Your task to perform on an android device: Empty the shopping cart on ebay. Add "acer nitro" to the cart on ebay Image 0: 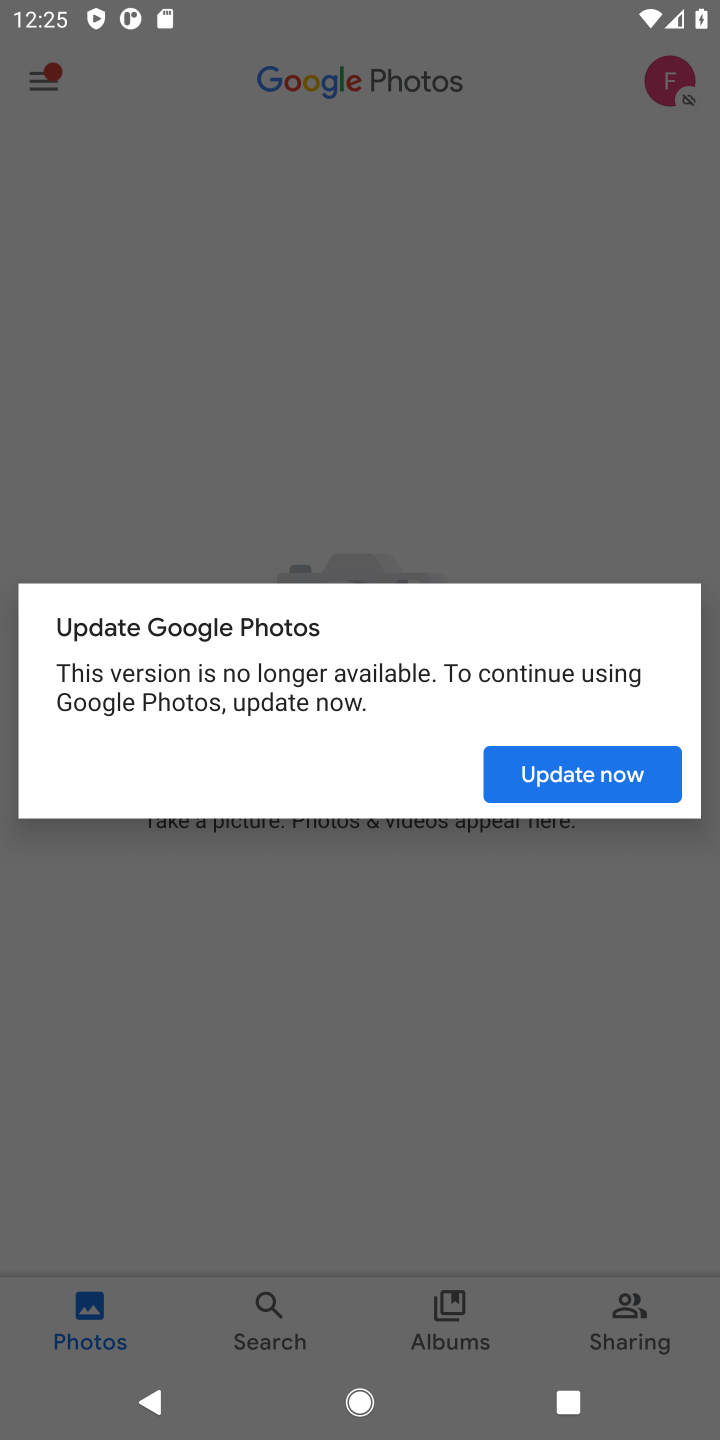
Step 0: press home button
Your task to perform on an android device: Empty the shopping cart on ebay. Add "acer nitro" to the cart on ebay Image 1: 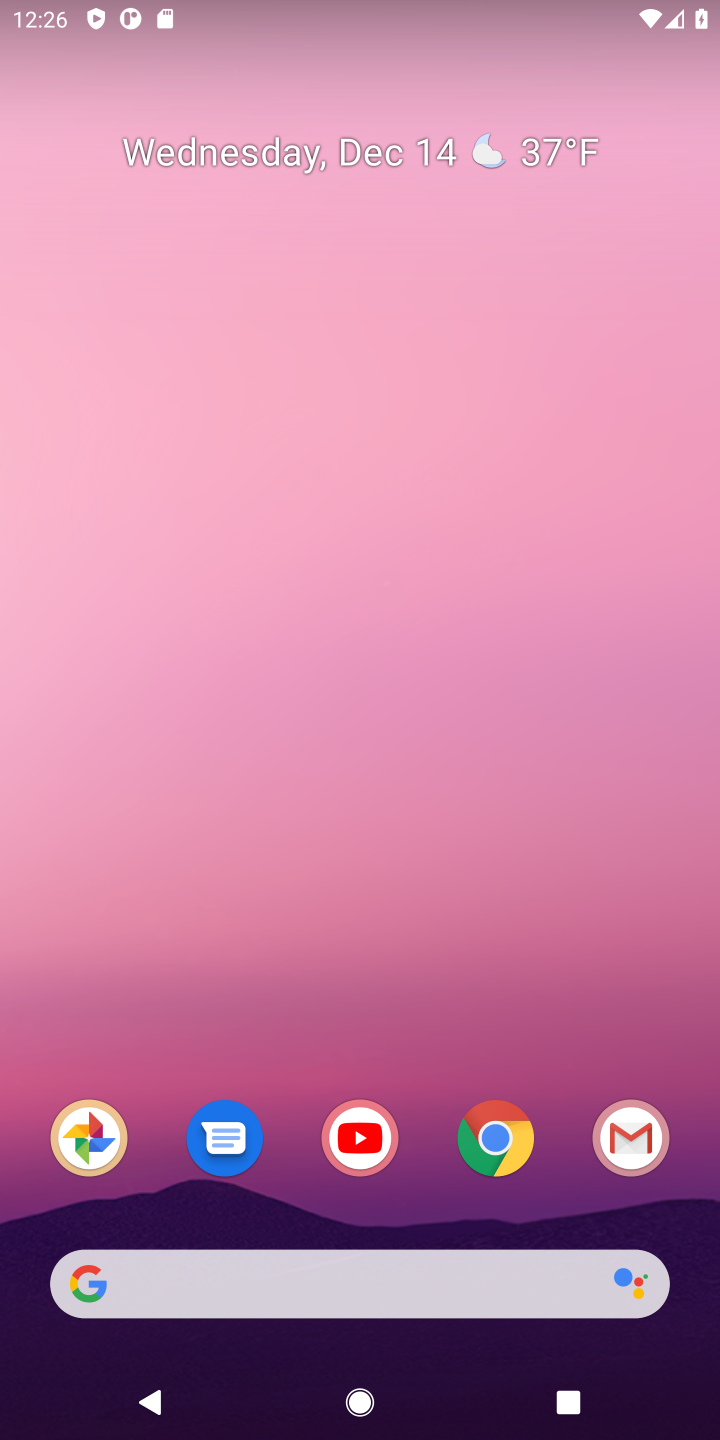
Step 1: click (495, 1134)
Your task to perform on an android device: Empty the shopping cart on ebay. Add "acer nitro" to the cart on ebay Image 2: 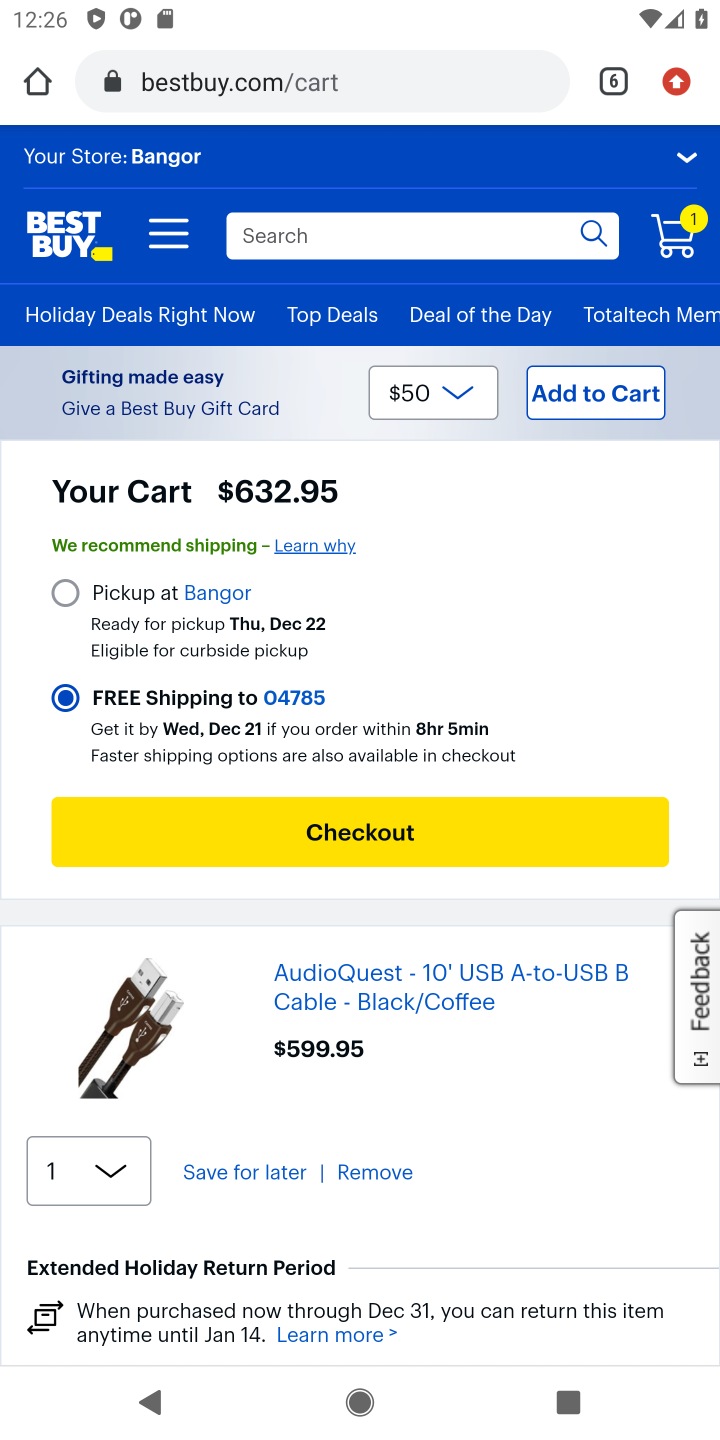
Step 2: click (606, 73)
Your task to perform on an android device: Empty the shopping cart on ebay. Add "acer nitro" to the cart on ebay Image 3: 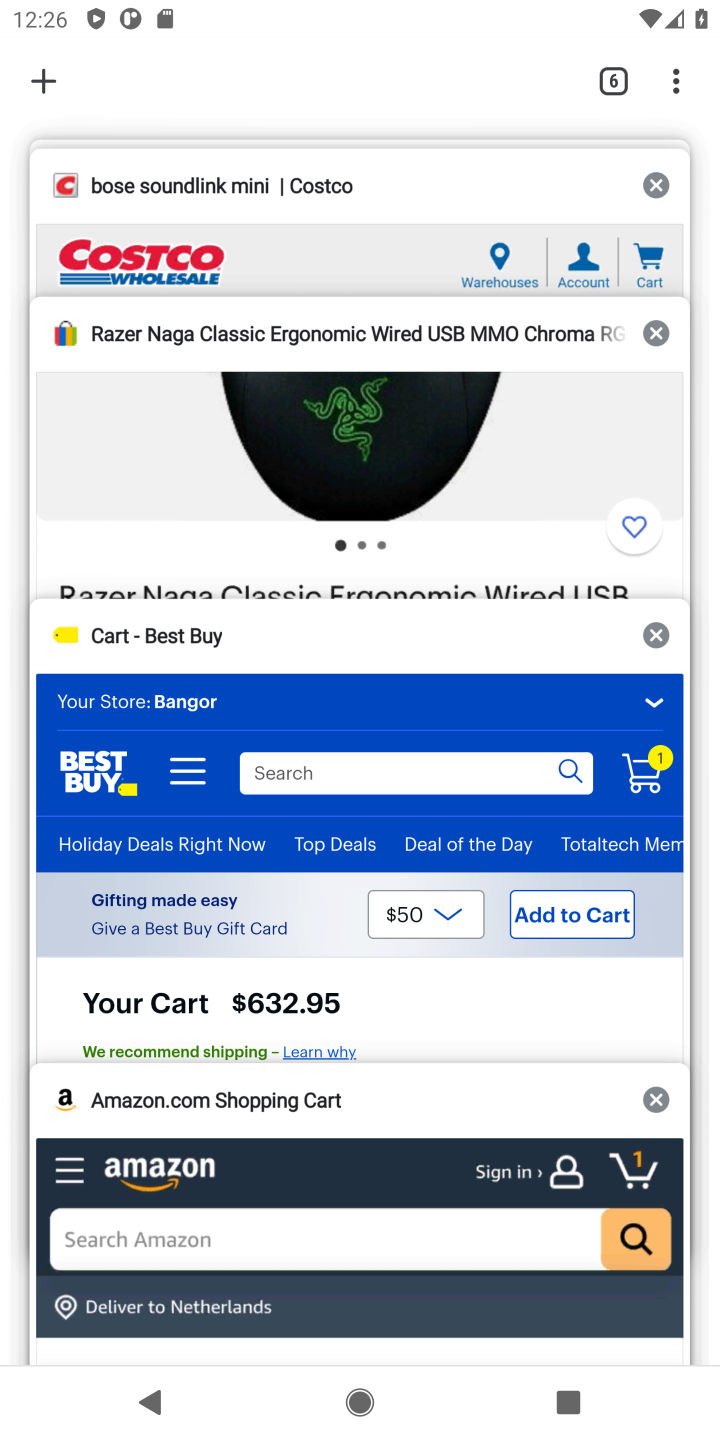
Step 3: drag from (275, 187) to (257, 1220)
Your task to perform on an android device: Empty the shopping cart on ebay. Add "acer nitro" to the cart on ebay Image 4: 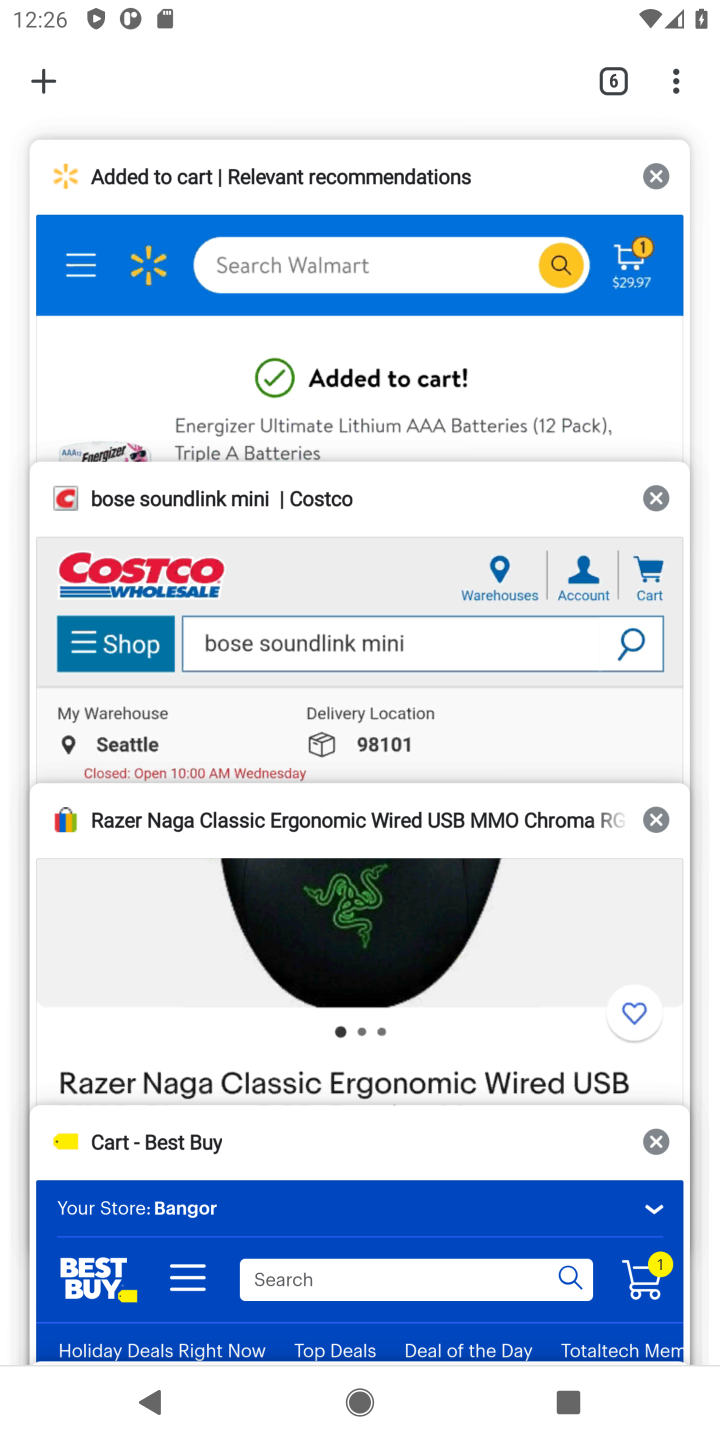
Step 4: drag from (172, 1314) to (388, 629)
Your task to perform on an android device: Empty the shopping cart on ebay. Add "acer nitro" to the cart on ebay Image 5: 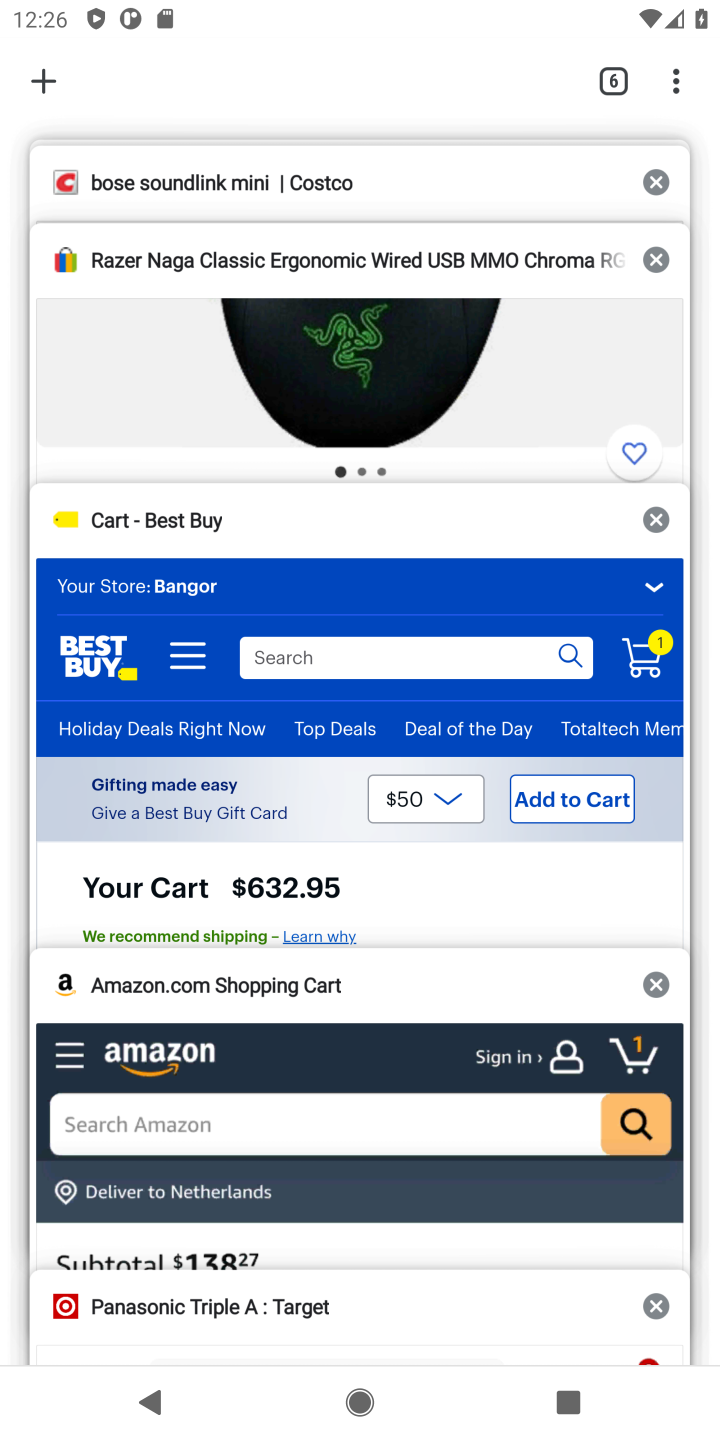
Step 5: click (315, 379)
Your task to perform on an android device: Empty the shopping cart on ebay. Add "acer nitro" to the cart on ebay Image 6: 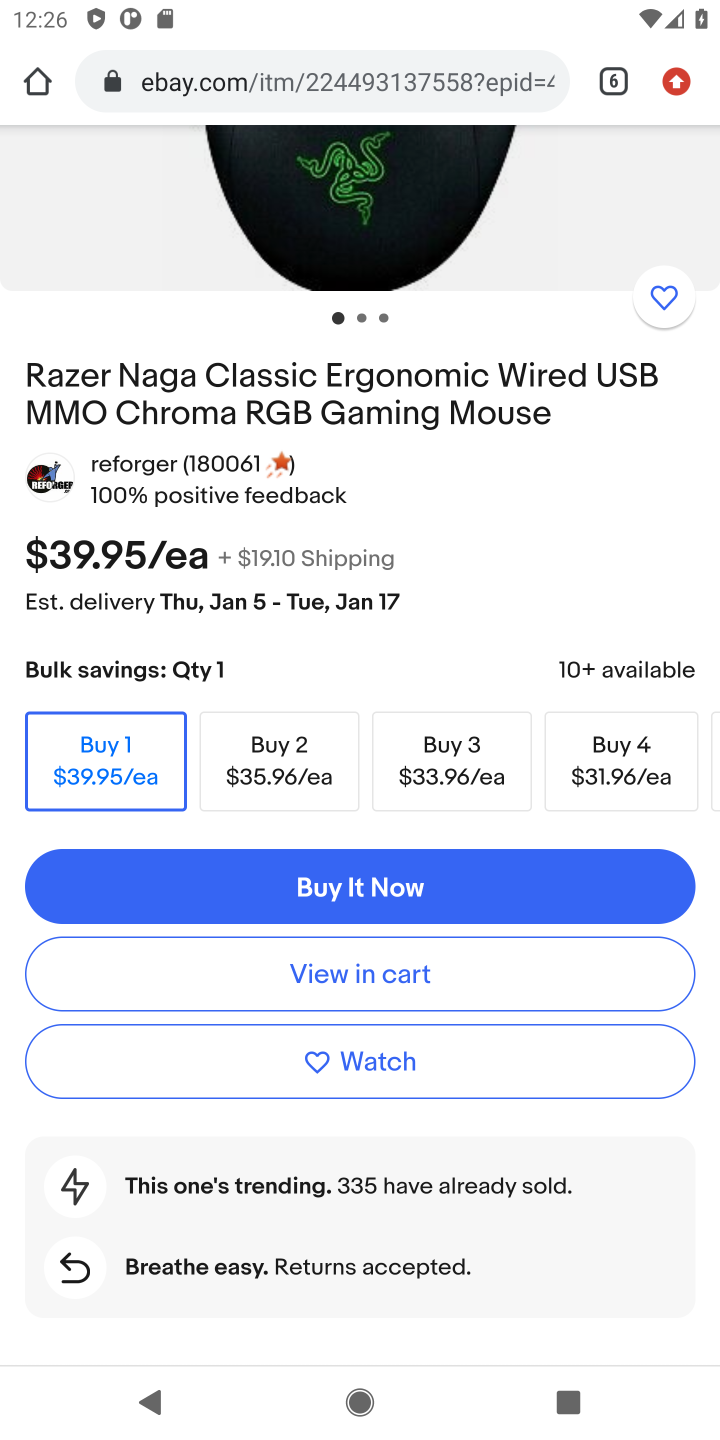
Step 6: click (321, 964)
Your task to perform on an android device: Empty the shopping cart on ebay. Add "acer nitro" to the cart on ebay Image 7: 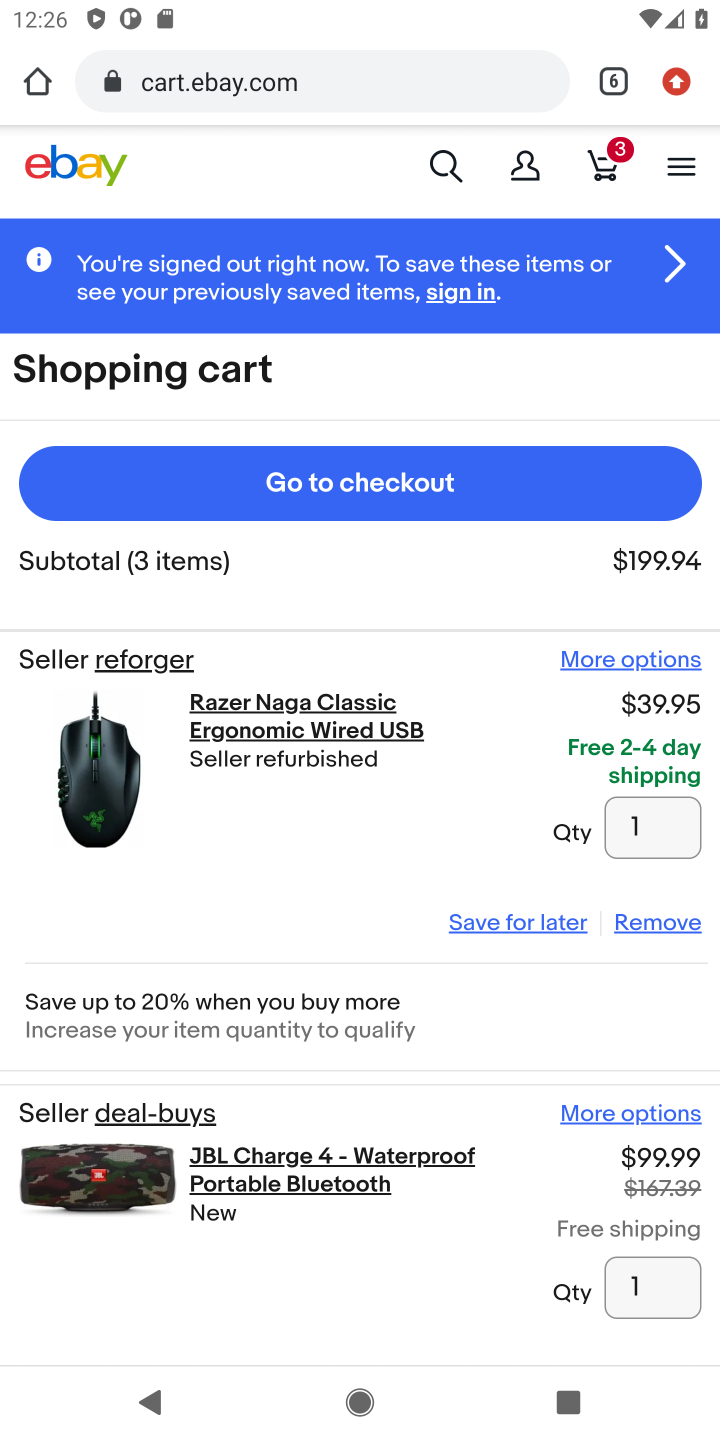
Step 7: click (666, 908)
Your task to perform on an android device: Empty the shopping cart on ebay. Add "acer nitro" to the cart on ebay Image 8: 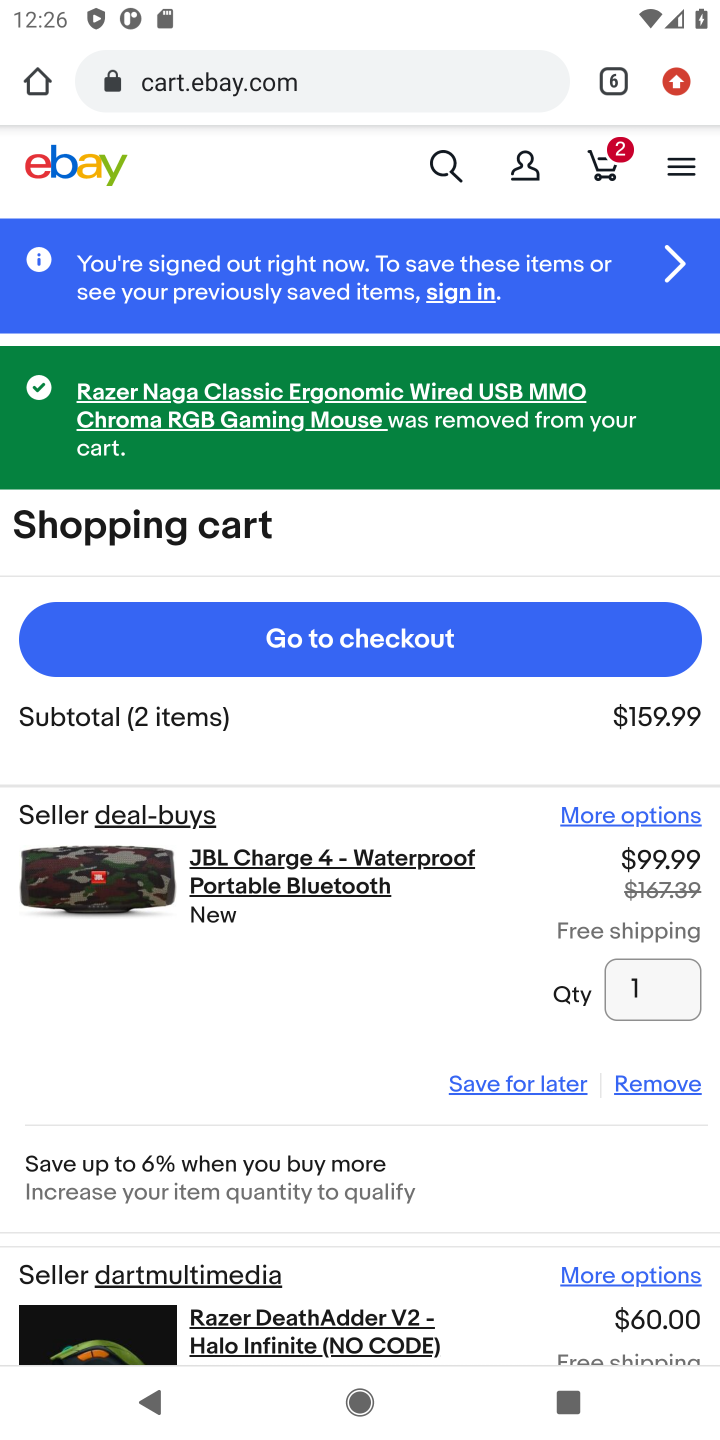
Step 8: click (665, 1074)
Your task to perform on an android device: Empty the shopping cart on ebay. Add "acer nitro" to the cart on ebay Image 9: 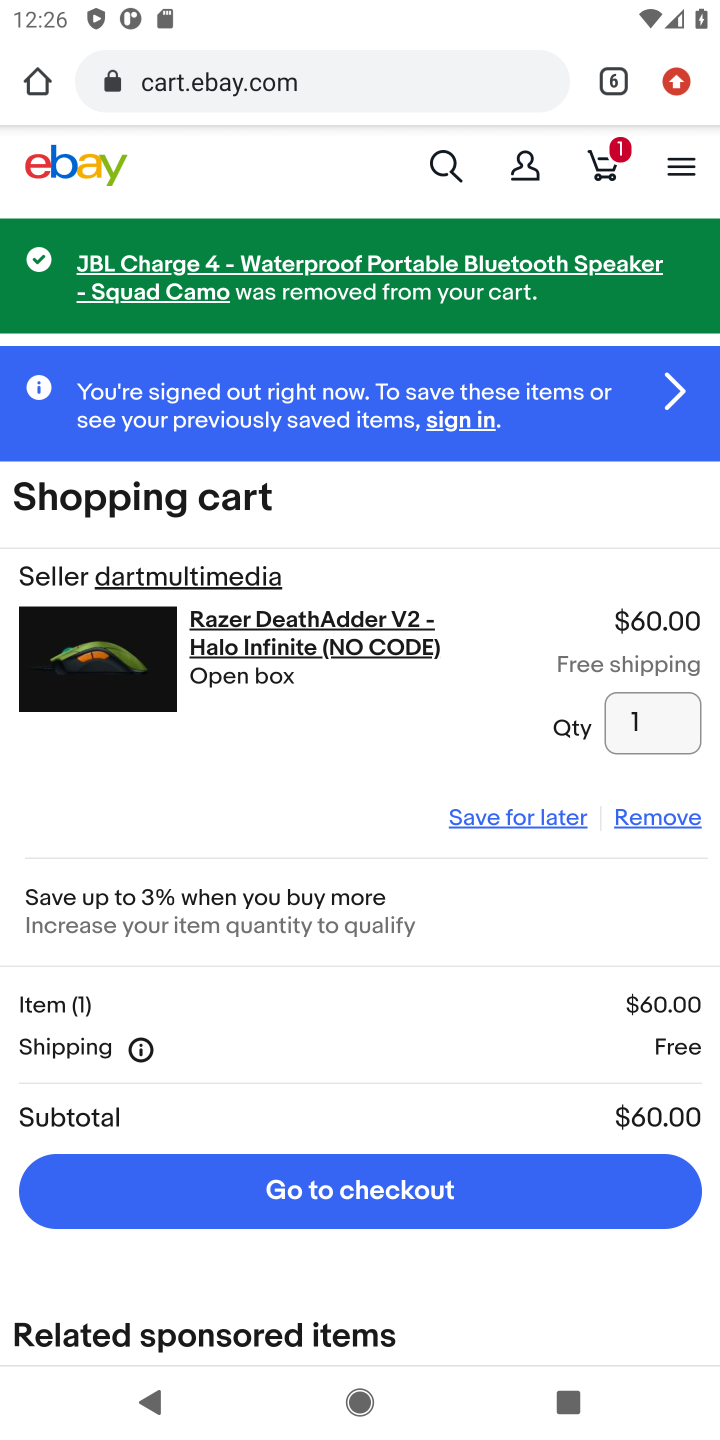
Step 9: click (640, 818)
Your task to perform on an android device: Empty the shopping cart on ebay. Add "acer nitro" to the cart on ebay Image 10: 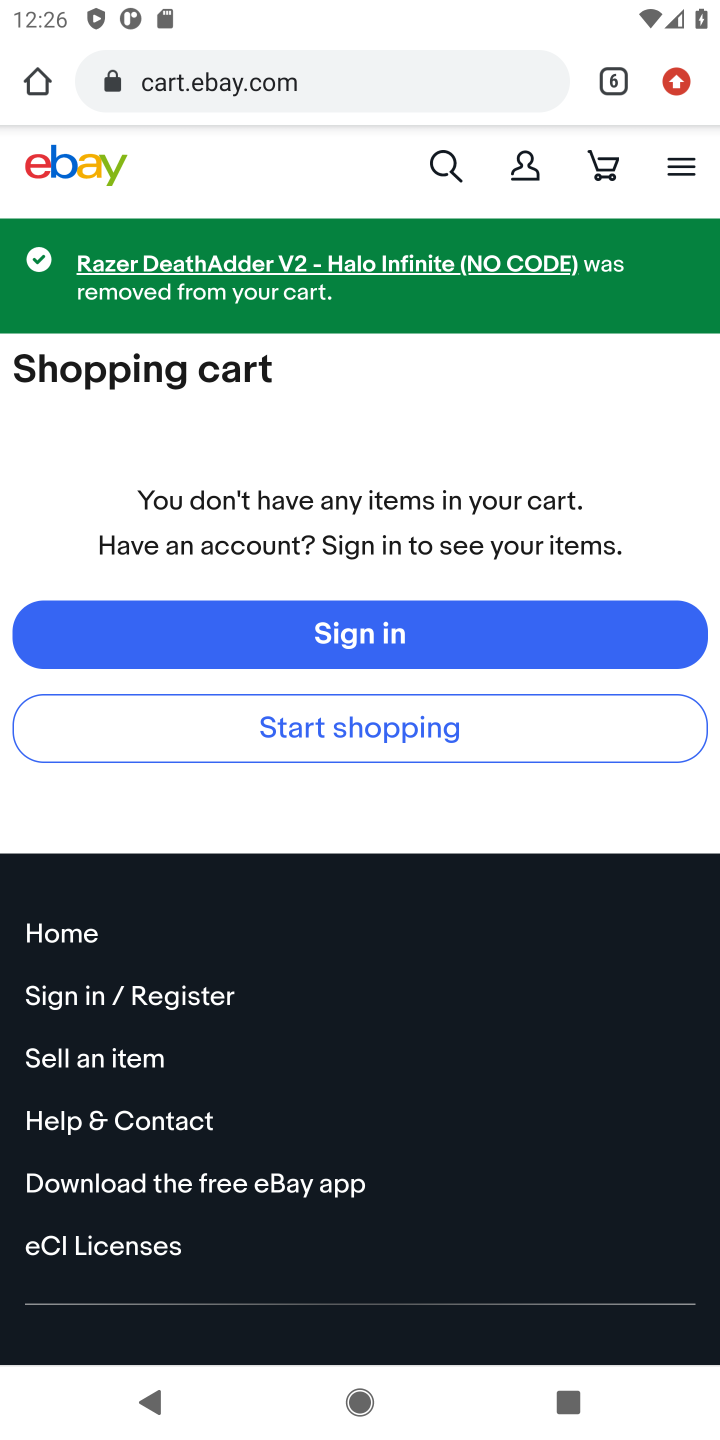
Step 10: click (441, 151)
Your task to perform on an android device: Empty the shopping cart on ebay. Add "acer nitro" to the cart on ebay Image 11: 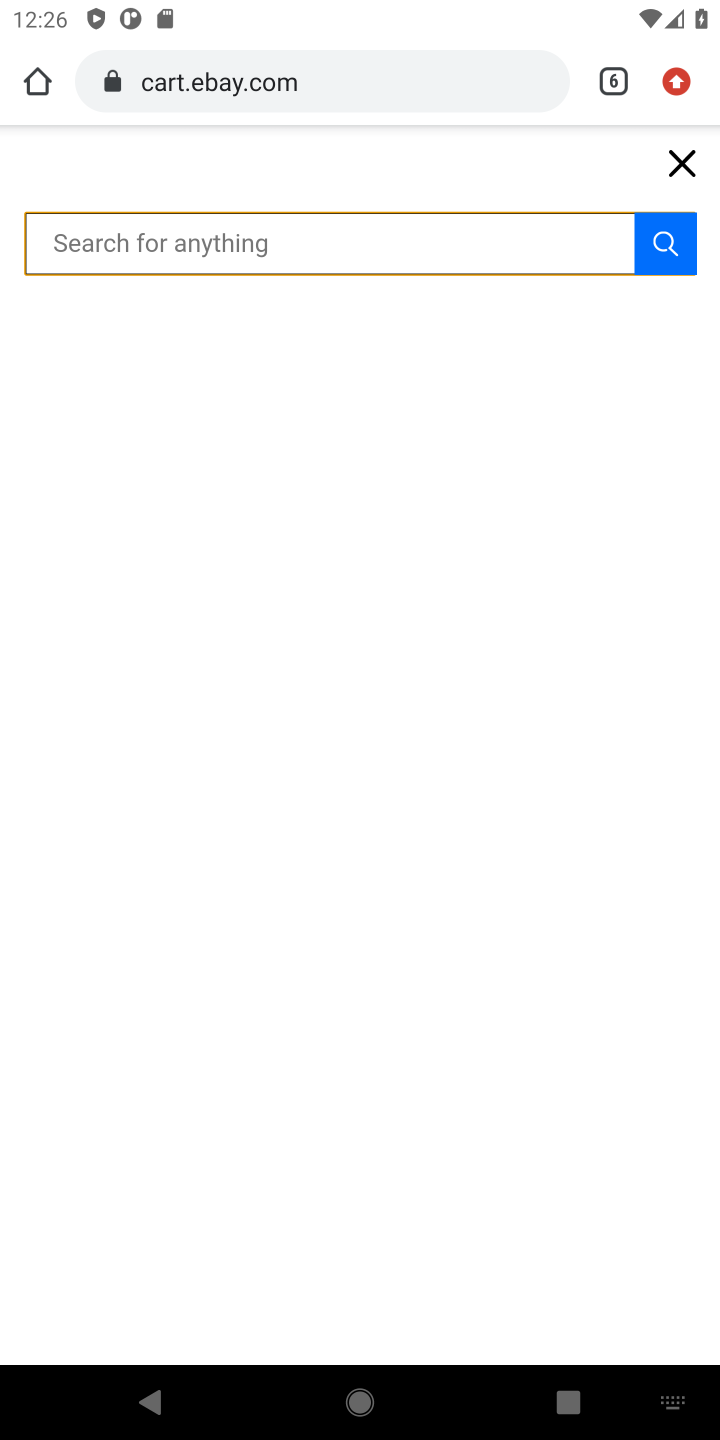
Step 11: type "acer nitro"
Your task to perform on an android device: Empty the shopping cart on ebay. Add "acer nitro" to the cart on ebay Image 12: 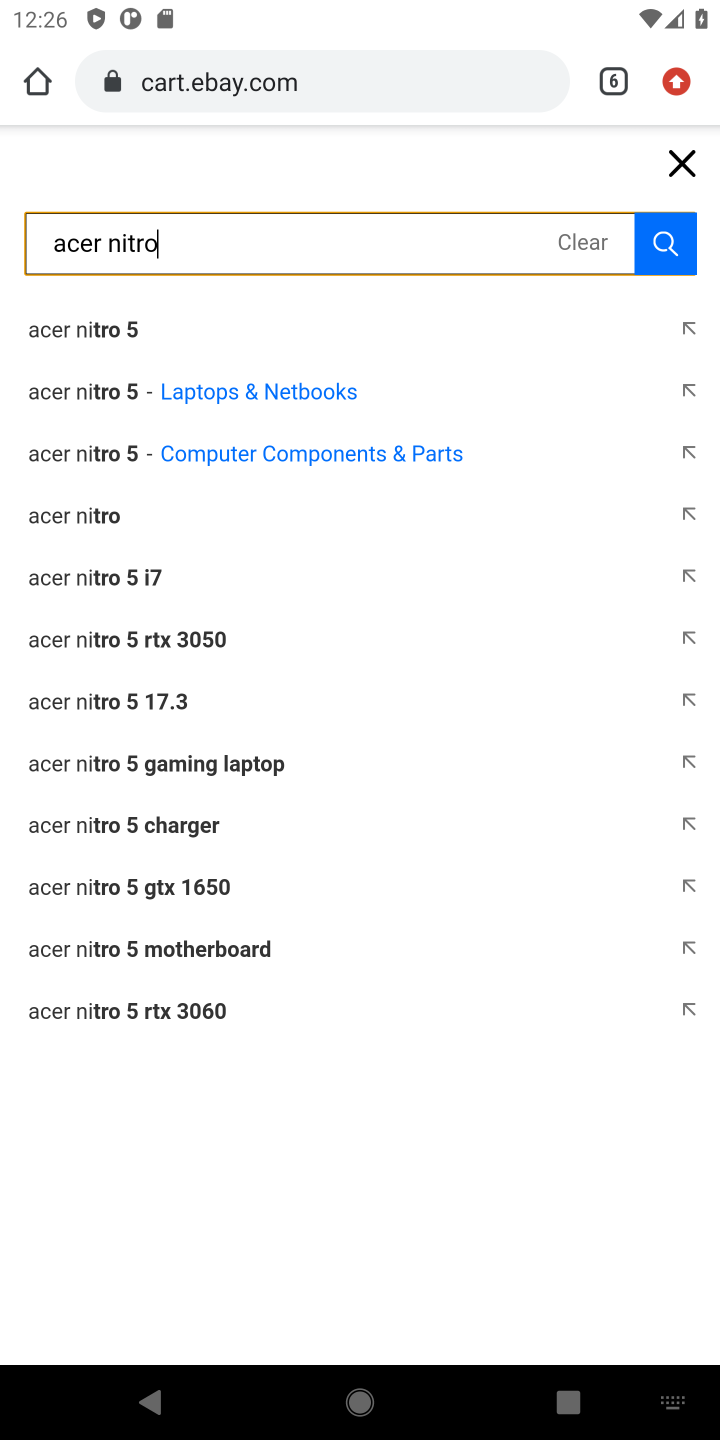
Step 12: click (104, 389)
Your task to perform on an android device: Empty the shopping cart on ebay. Add "acer nitro" to the cart on ebay Image 13: 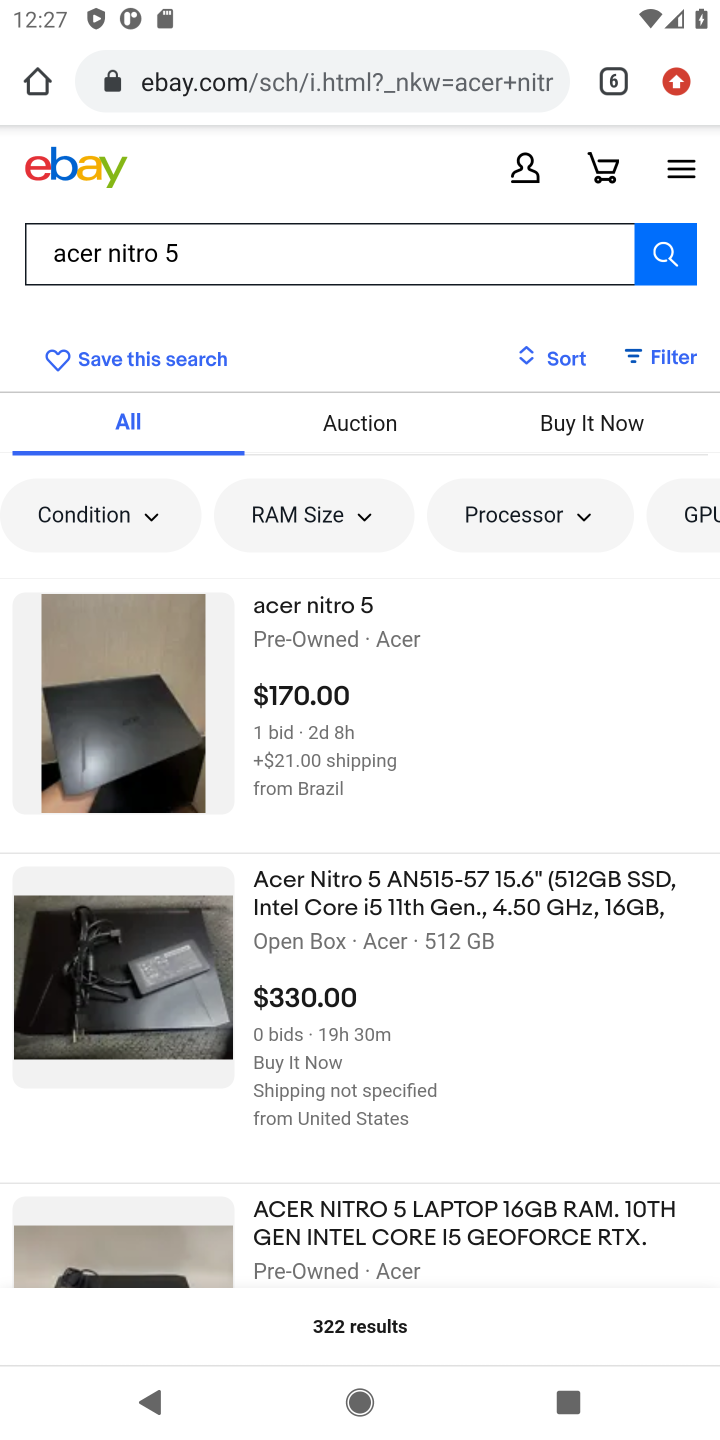
Step 13: click (406, 913)
Your task to perform on an android device: Empty the shopping cart on ebay. Add "acer nitro" to the cart on ebay Image 14: 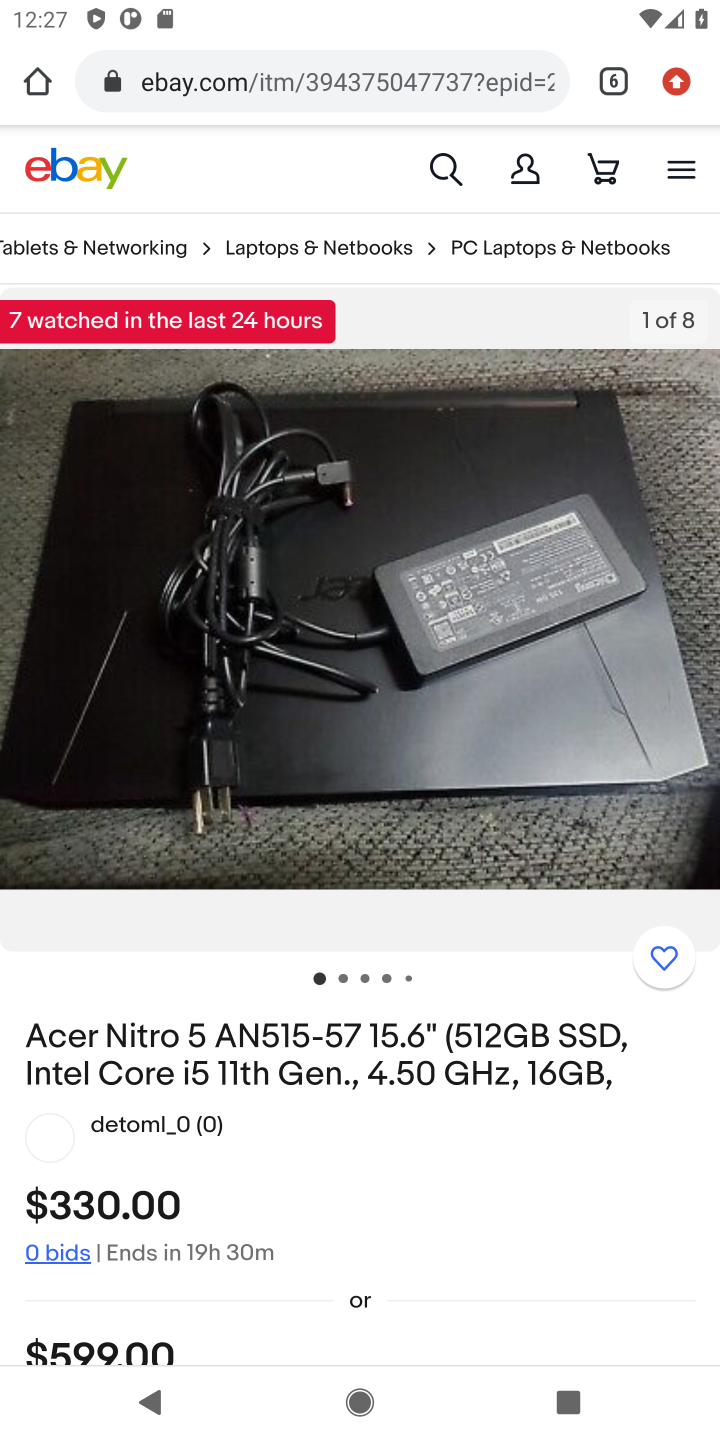
Step 14: drag from (438, 1230) to (157, 288)
Your task to perform on an android device: Empty the shopping cart on ebay. Add "acer nitro" to the cart on ebay Image 15: 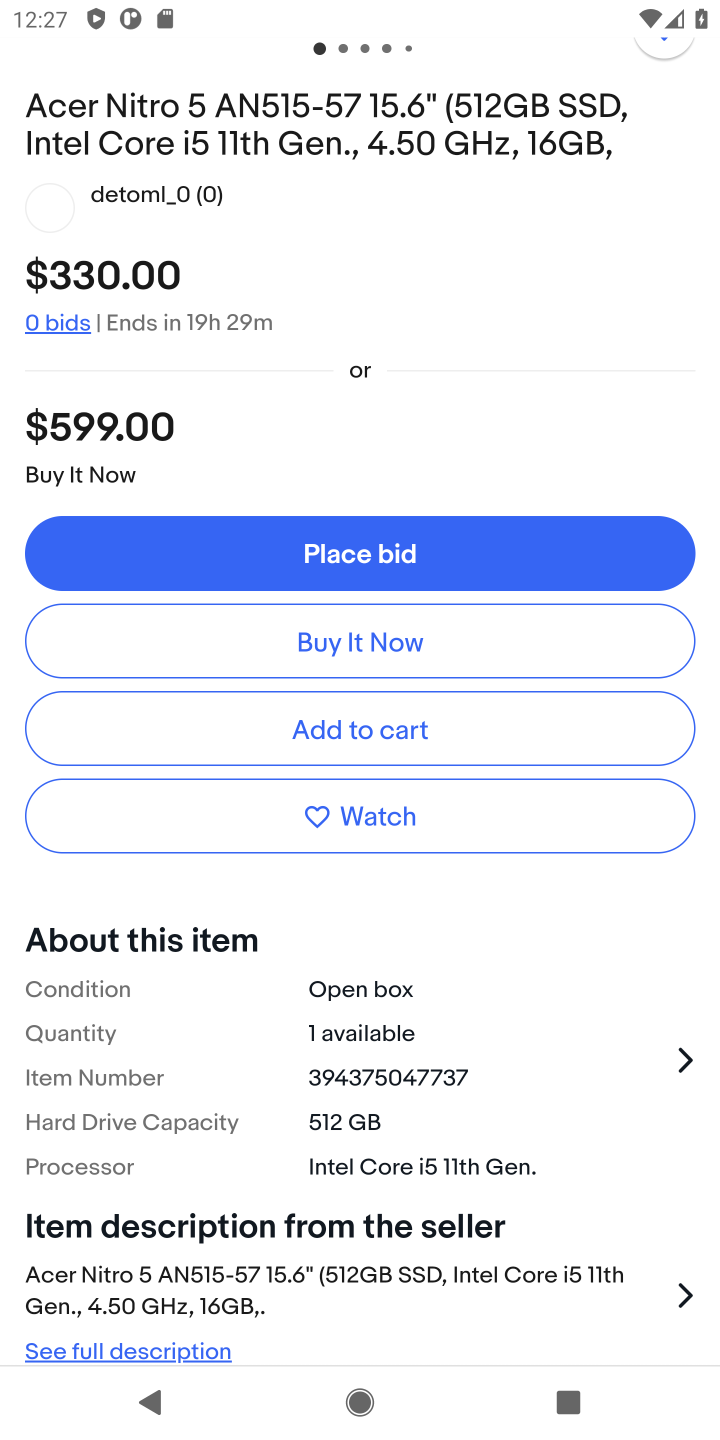
Step 15: press home button
Your task to perform on an android device: Empty the shopping cart on ebay. Add "acer nitro" to the cart on ebay Image 16: 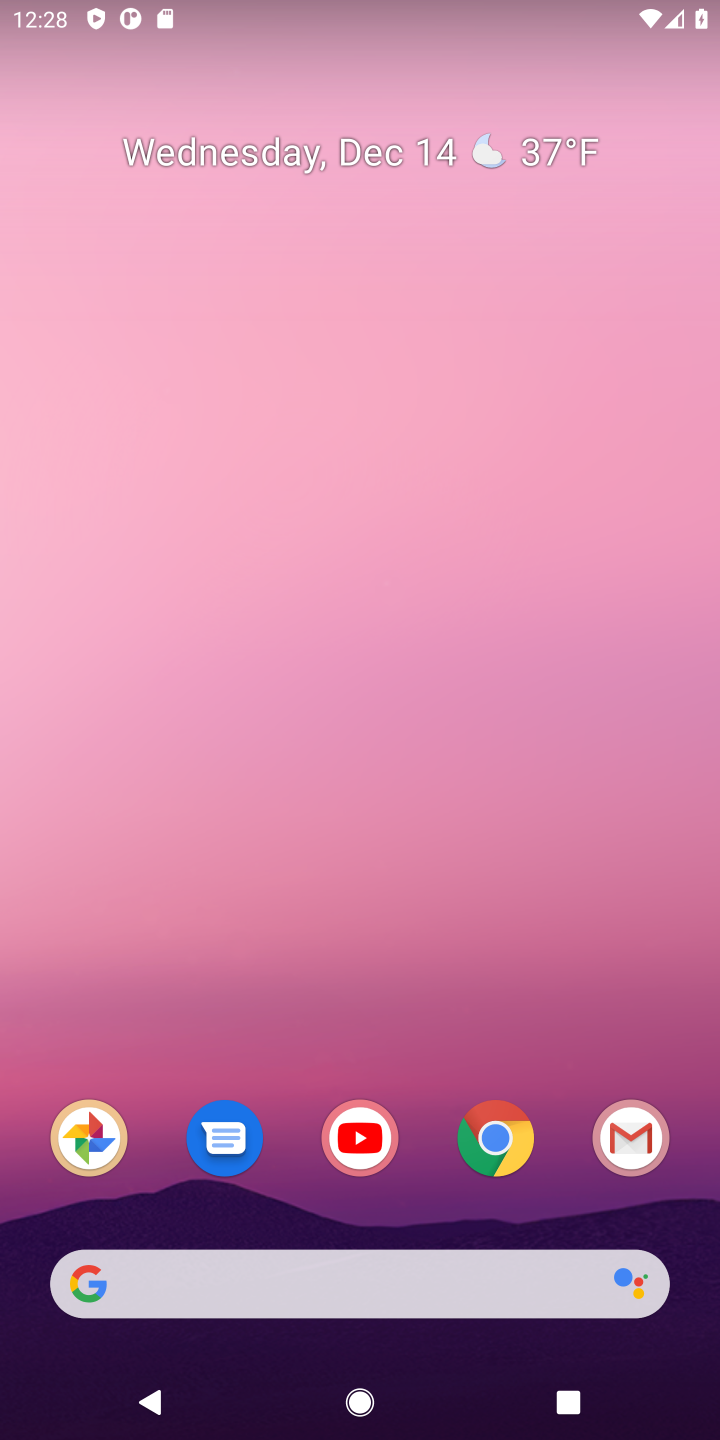
Step 16: click (488, 1146)
Your task to perform on an android device: Empty the shopping cart on ebay. Add "acer nitro" to the cart on ebay Image 17: 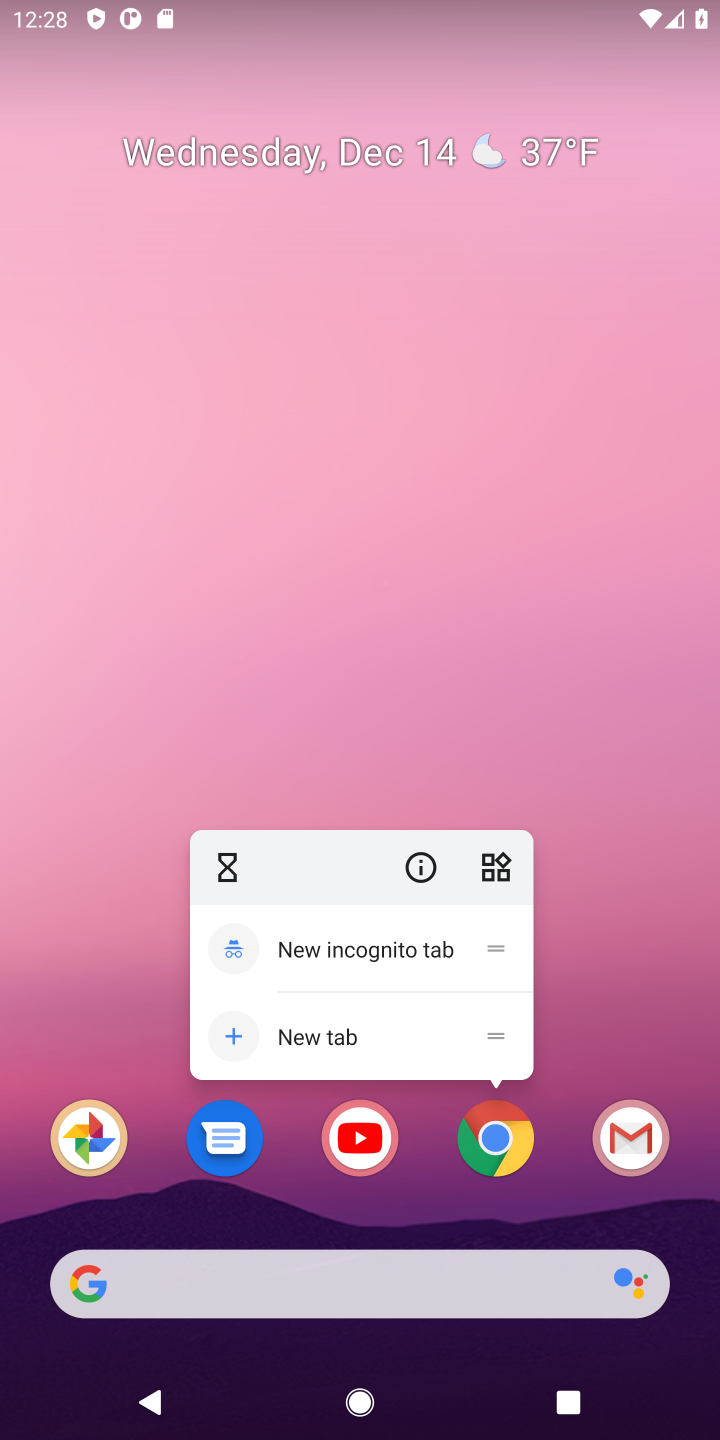
Step 17: click (488, 1146)
Your task to perform on an android device: Empty the shopping cart on ebay. Add "acer nitro" to the cart on ebay Image 18: 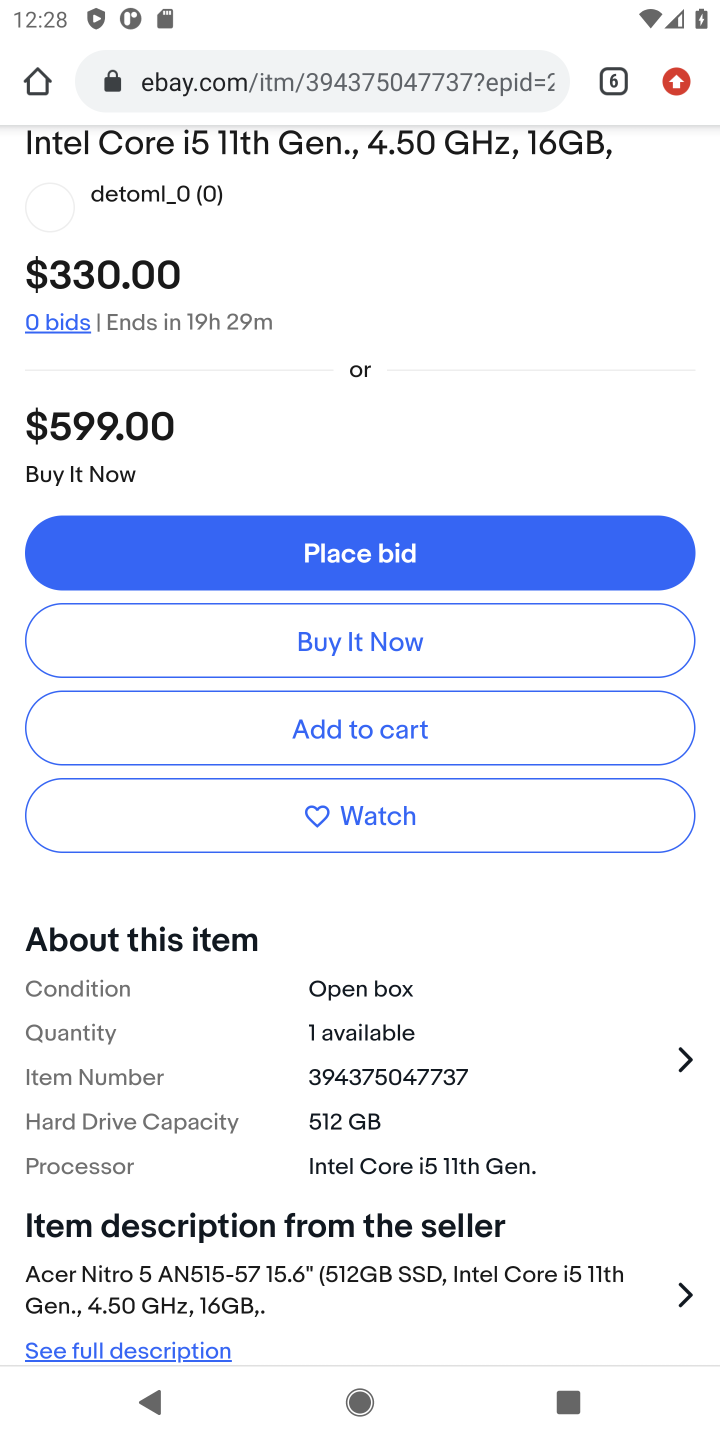
Step 18: task complete